Your task to perform on an android device: Open calendar and show me the first week of next month Image 0: 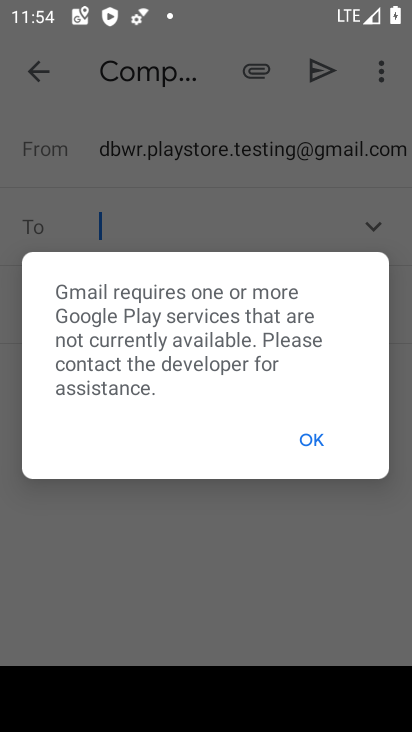
Step 0: click (309, 441)
Your task to perform on an android device: Open calendar and show me the first week of next month Image 1: 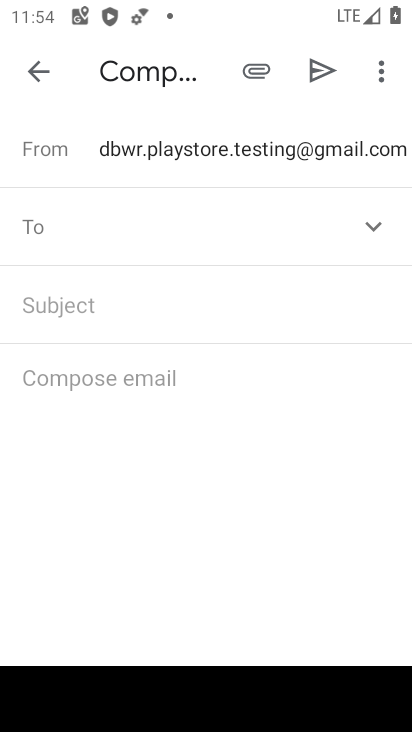
Step 1: press back button
Your task to perform on an android device: Open calendar and show me the first week of next month Image 2: 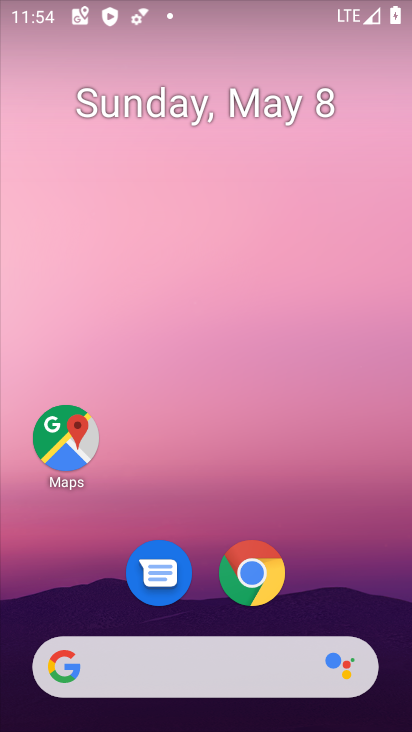
Step 2: drag from (310, 575) to (294, 34)
Your task to perform on an android device: Open calendar and show me the first week of next month Image 3: 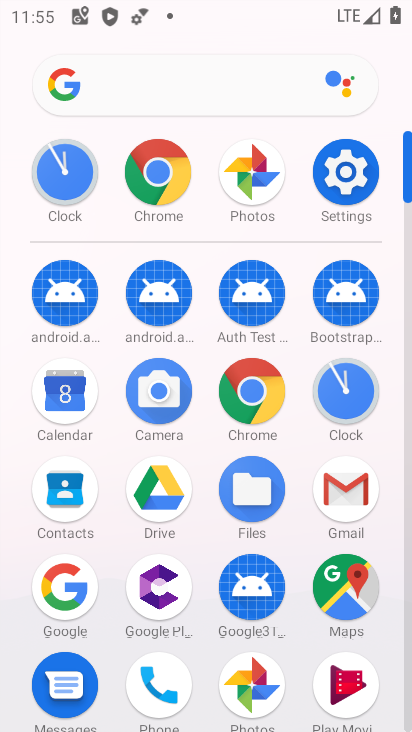
Step 3: click (61, 385)
Your task to perform on an android device: Open calendar and show me the first week of next month Image 4: 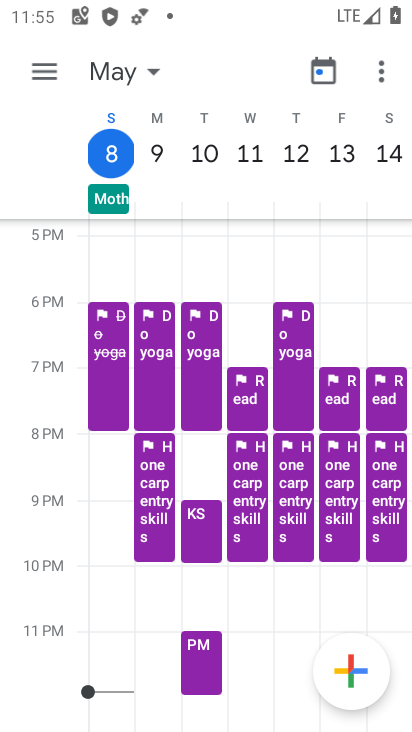
Step 4: click (133, 68)
Your task to perform on an android device: Open calendar and show me the first week of next month Image 5: 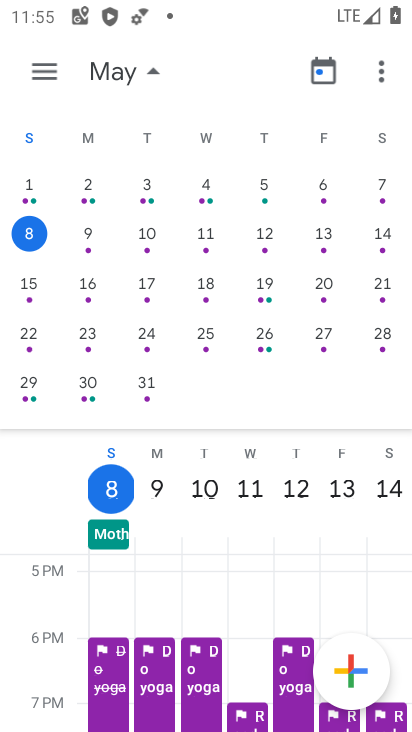
Step 5: drag from (384, 262) to (0, 268)
Your task to perform on an android device: Open calendar and show me the first week of next month Image 6: 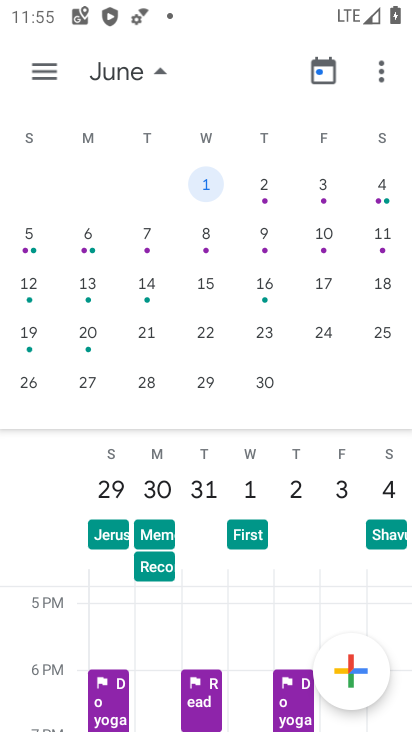
Step 6: click (46, 68)
Your task to perform on an android device: Open calendar and show me the first week of next month Image 7: 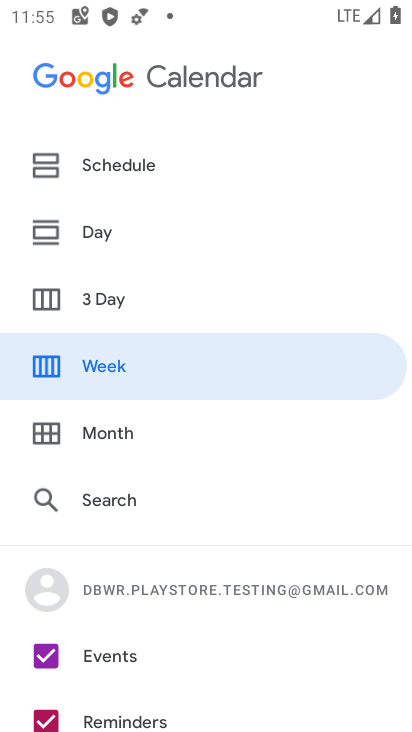
Step 7: click (130, 361)
Your task to perform on an android device: Open calendar and show me the first week of next month Image 8: 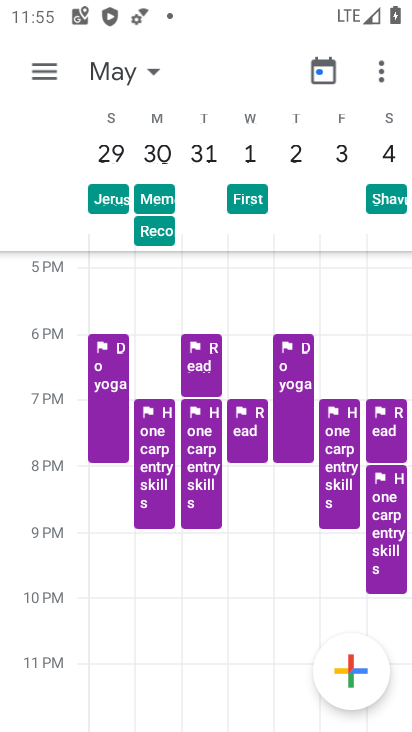
Step 8: task complete